Your task to perform on an android device: Open maps Image 0: 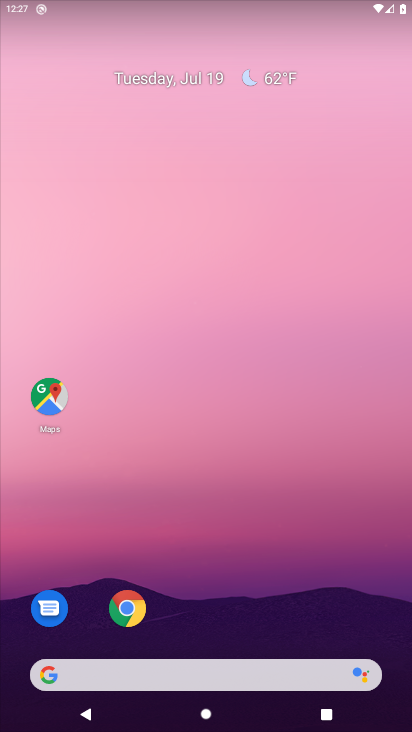
Step 0: press home button
Your task to perform on an android device: Open maps Image 1: 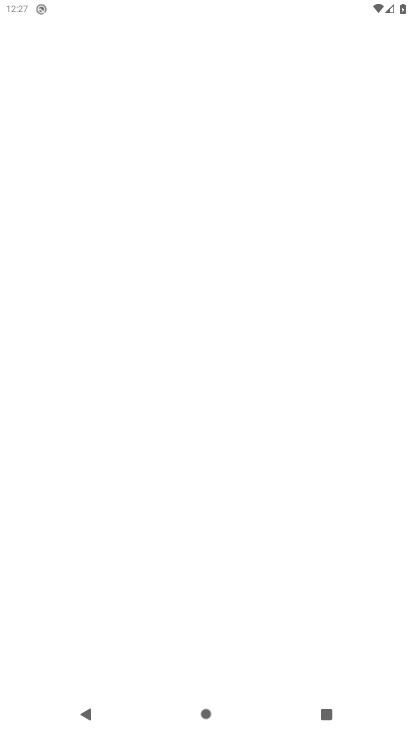
Step 1: click (243, 27)
Your task to perform on an android device: Open maps Image 2: 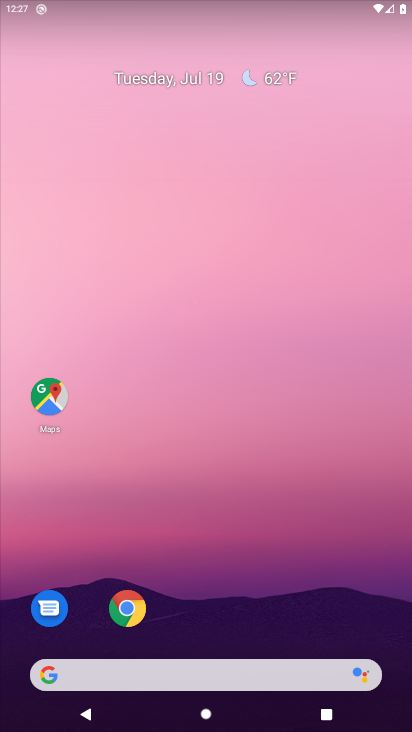
Step 2: click (51, 391)
Your task to perform on an android device: Open maps Image 3: 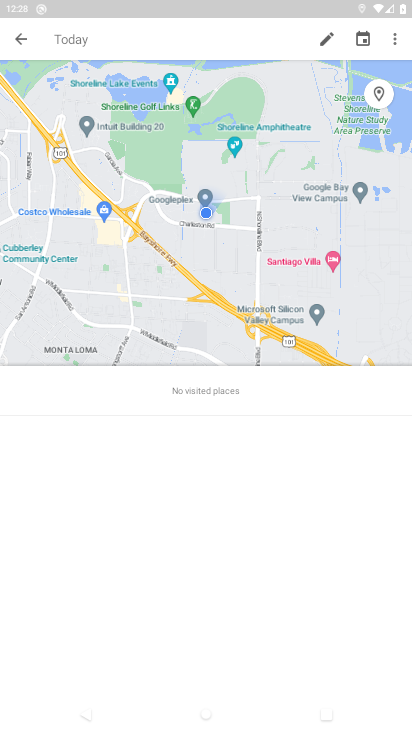
Step 3: task complete